Your task to perform on an android device: Go to privacy settings Image 0: 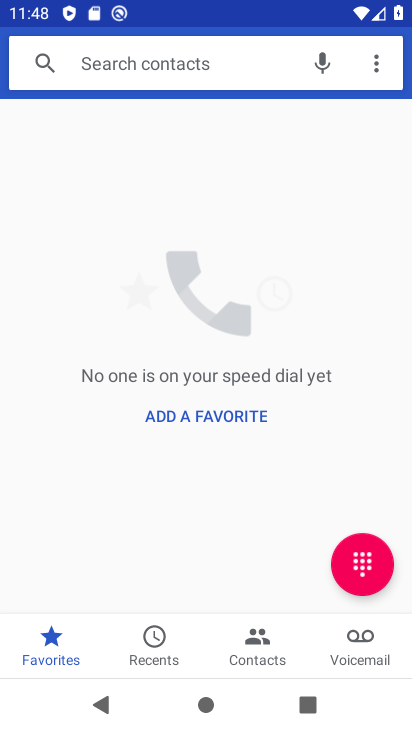
Step 0: press home button
Your task to perform on an android device: Go to privacy settings Image 1: 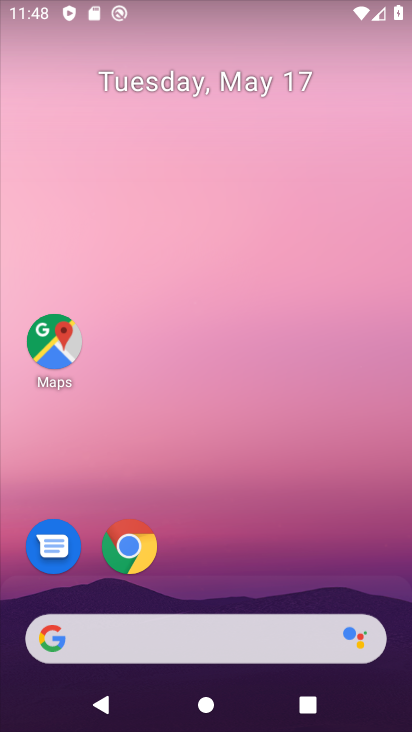
Step 1: click (135, 570)
Your task to perform on an android device: Go to privacy settings Image 2: 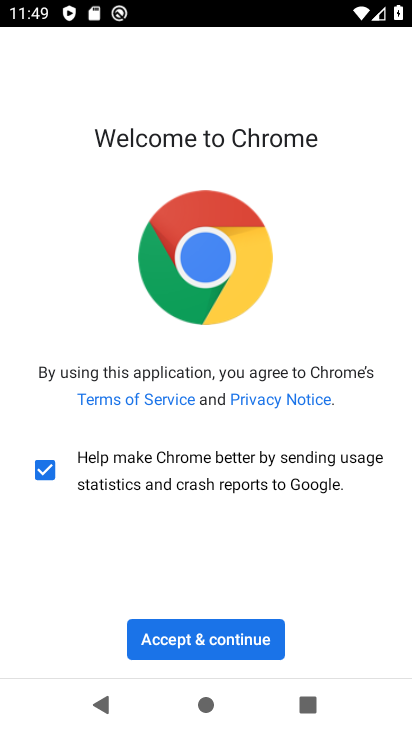
Step 2: click (215, 640)
Your task to perform on an android device: Go to privacy settings Image 3: 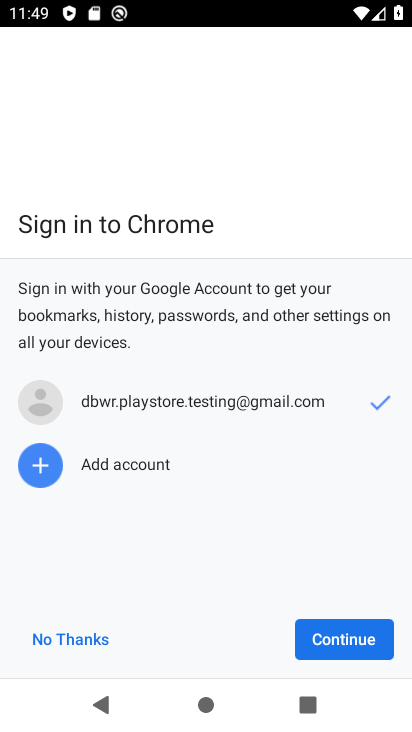
Step 3: click (357, 648)
Your task to perform on an android device: Go to privacy settings Image 4: 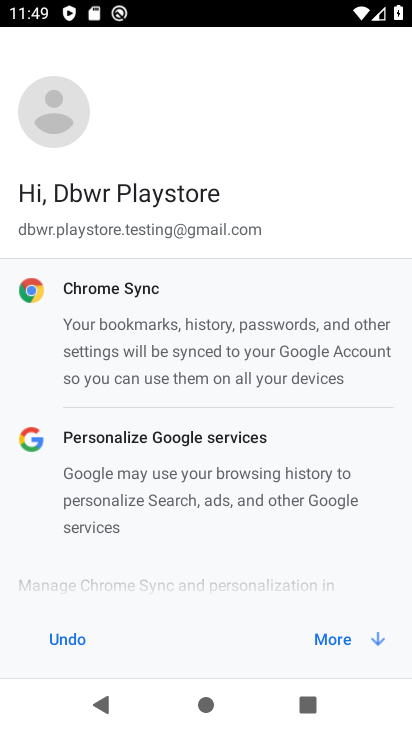
Step 4: click (334, 644)
Your task to perform on an android device: Go to privacy settings Image 5: 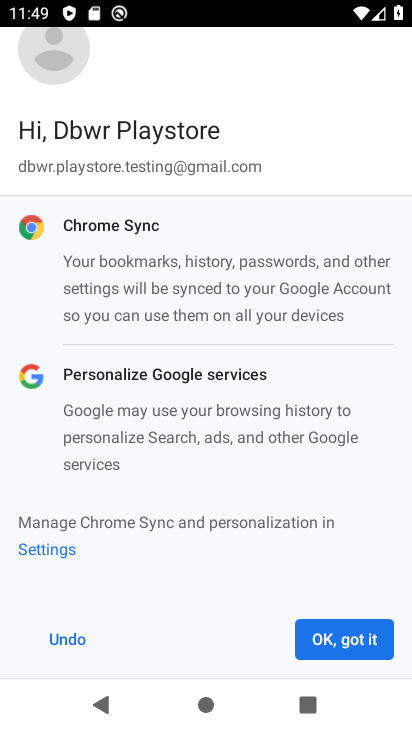
Step 5: click (334, 644)
Your task to perform on an android device: Go to privacy settings Image 6: 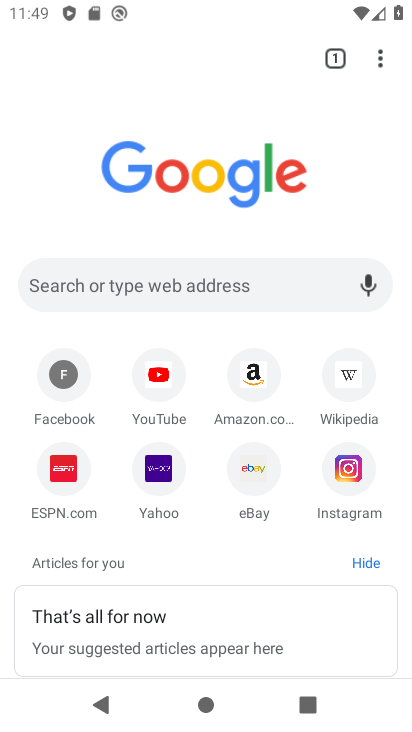
Step 6: drag from (386, 61) to (286, 485)
Your task to perform on an android device: Go to privacy settings Image 7: 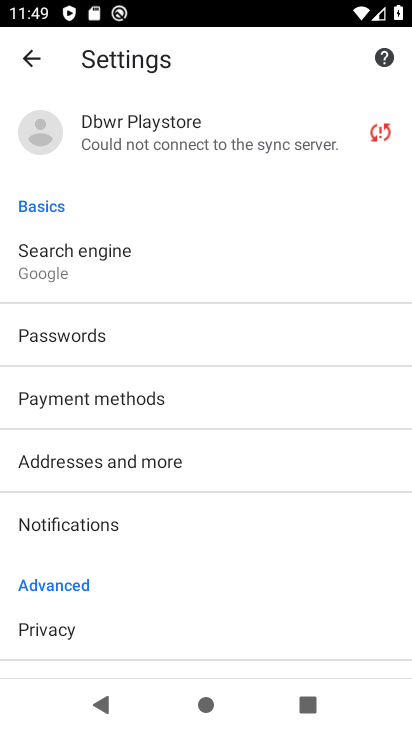
Step 7: click (191, 625)
Your task to perform on an android device: Go to privacy settings Image 8: 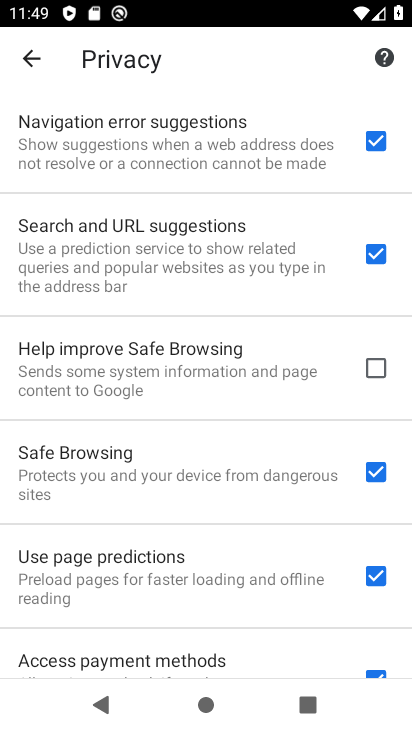
Step 8: task complete